Your task to perform on an android device: toggle wifi Image 0: 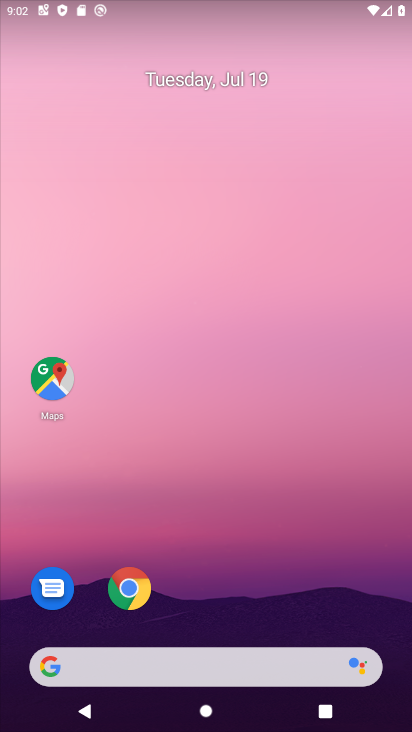
Step 0: drag from (208, 583) to (182, 161)
Your task to perform on an android device: toggle wifi Image 1: 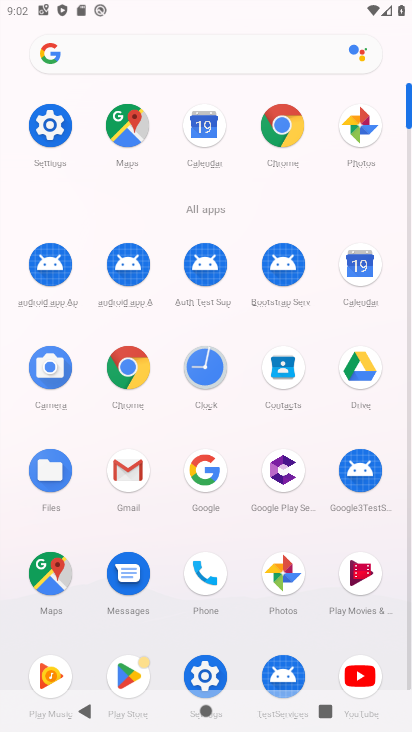
Step 1: click (48, 123)
Your task to perform on an android device: toggle wifi Image 2: 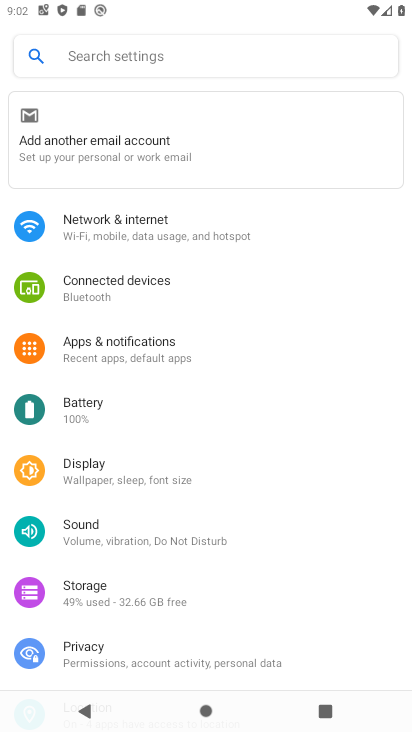
Step 2: click (120, 212)
Your task to perform on an android device: toggle wifi Image 3: 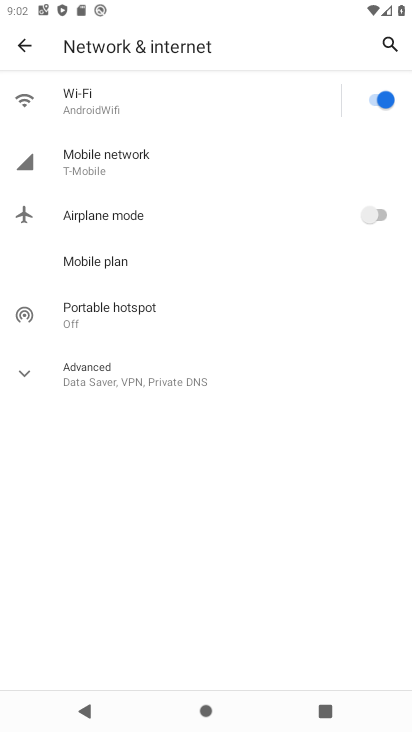
Step 3: click (377, 100)
Your task to perform on an android device: toggle wifi Image 4: 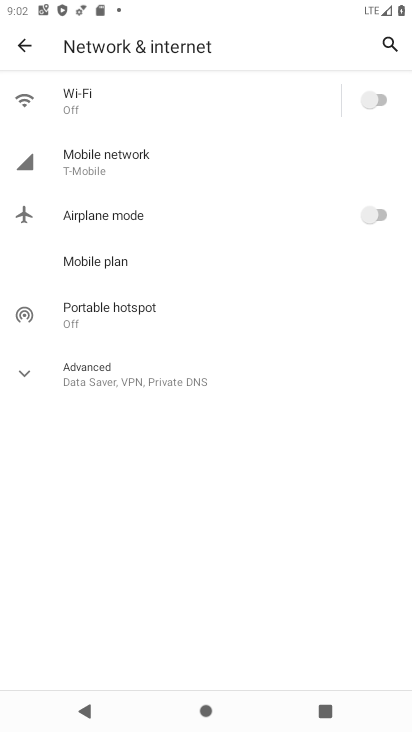
Step 4: task complete